Your task to perform on an android device: turn on data saver in the chrome app Image 0: 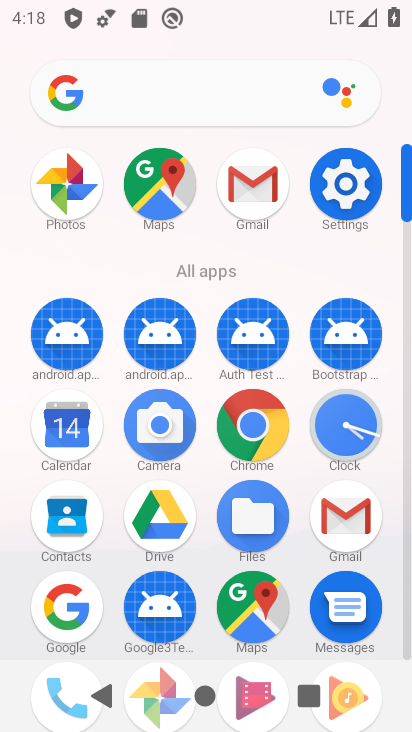
Step 0: click (273, 408)
Your task to perform on an android device: turn on data saver in the chrome app Image 1: 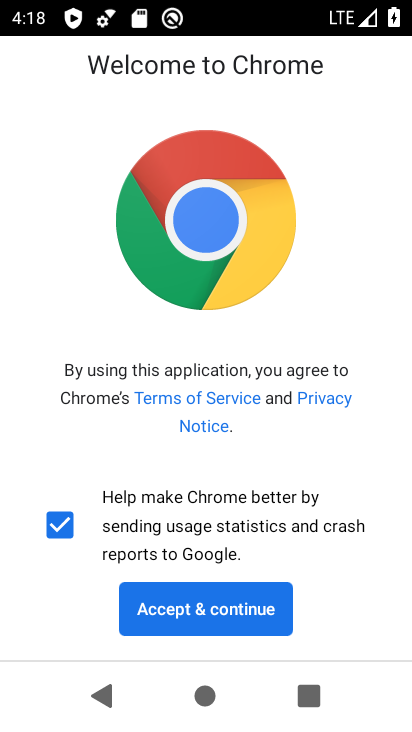
Step 1: click (226, 618)
Your task to perform on an android device: turn on data saver in the chrome app Image 2: 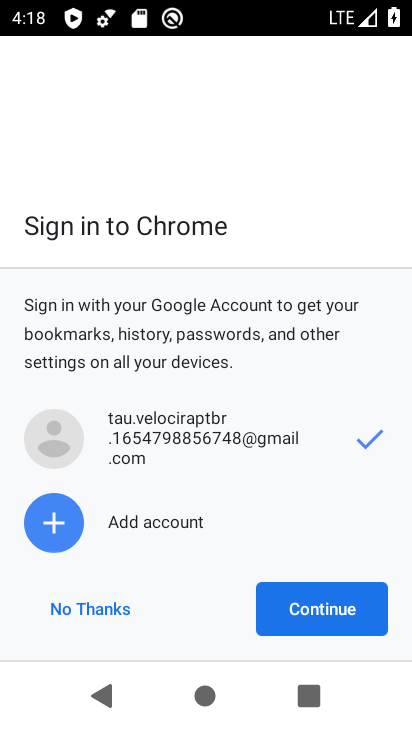
Step 2: click (271, 620)
Your task to perform on an android device: turn on data saver in the chrome app Image 3: 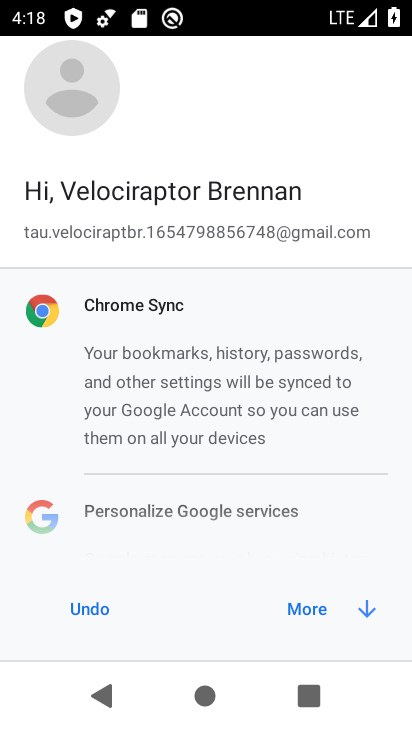
Step 3: click (298, 606)
Your task to perform on an android device: turn on data saver in the chrome app Image 4: 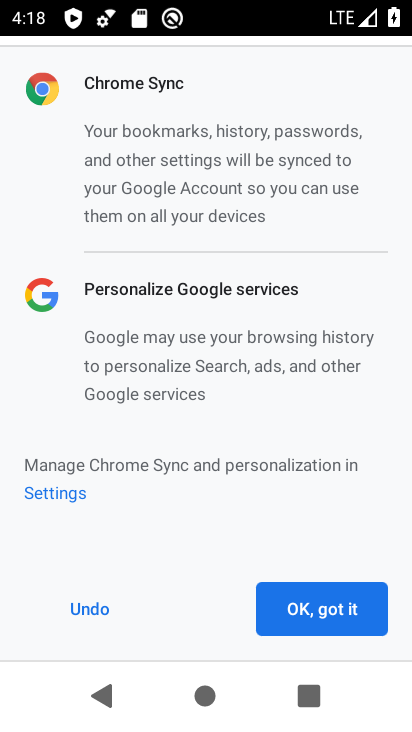
Step 4: click (304, 608)
Your task to perform on an android device: turn on data saver in the chrome app Image 5: 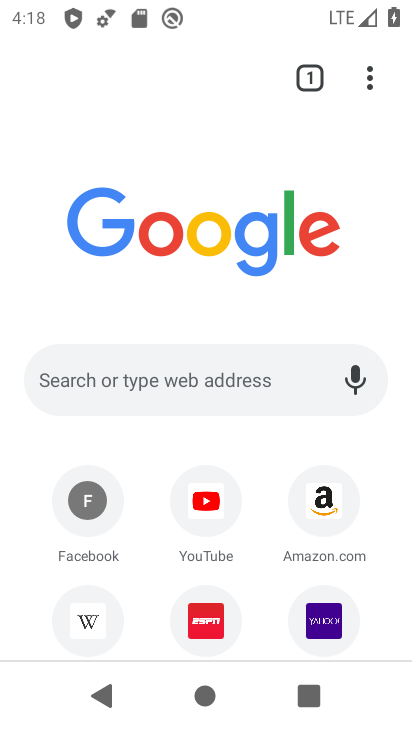
Step 5: click (372, 71)
Your task to perform on an android device: turn on data saver in the chrome app Image 6: 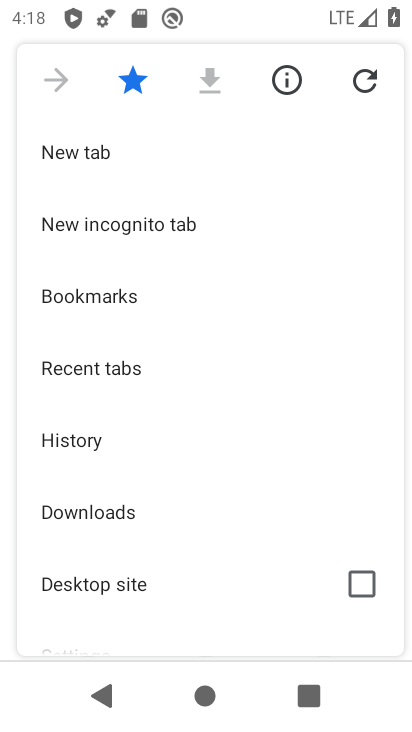
Step 6: drag from (151, 607) to (151, 232)
Your task to perform on an android device: turn on data saver in the chrome app Image 7: 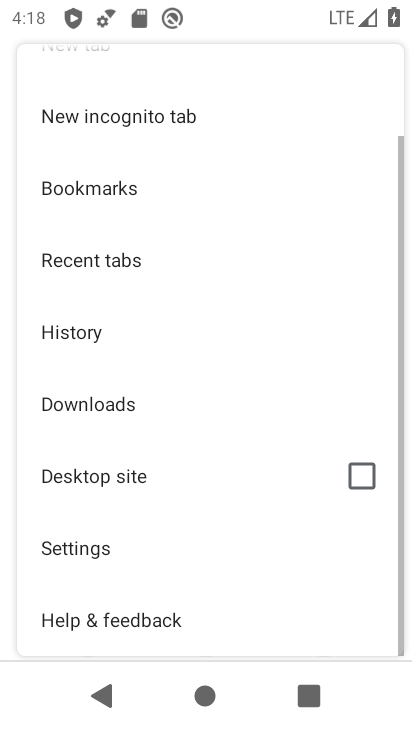
Step 7: click (124, 542)
Your task to perform on an android device: turn on data saver in the chrome app Image 8: 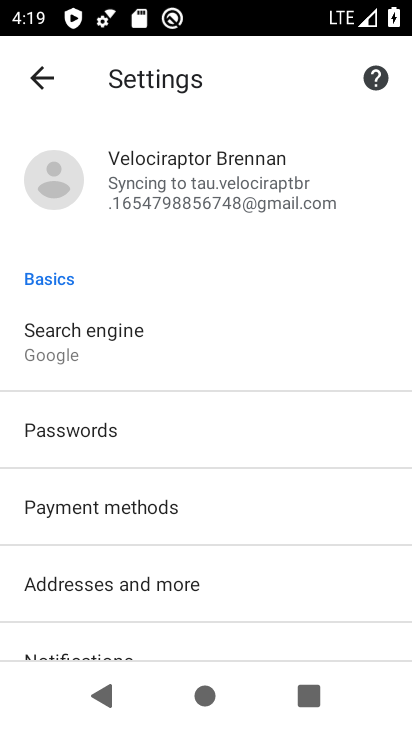
Step 8: drag from (202, 637) to (156, 200)
Your task to perform on an android device: turn on data saver in the chrome app Image 9: 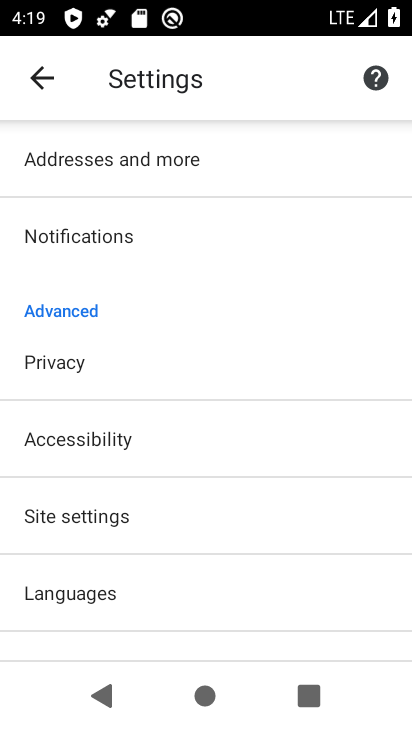
Step 9: drag from (147, 579) to (114, 262)
Your task to perform on an android device: turn on data saver in the chrome app Image 10: 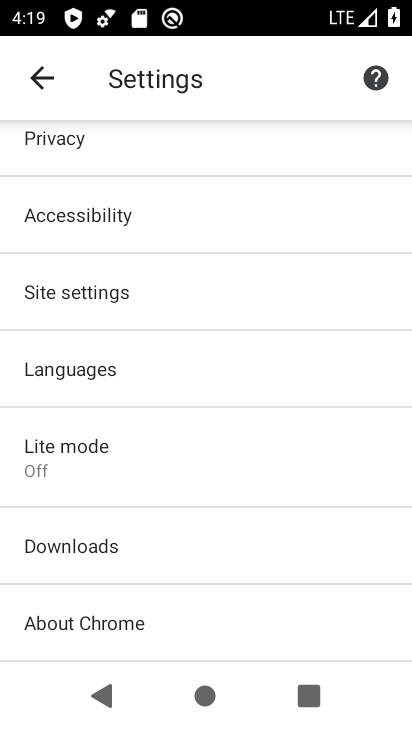
Step 10: click (123, 440)
Your task to perform on an android device: turn on data saver in the chrome app Image 11: 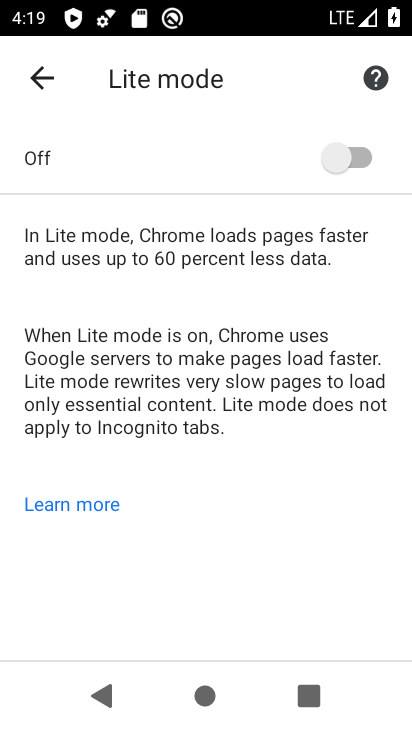
Step 11: click (359, 174)
Your task to perform on an android device: turn on data saver in the chrome app Image 12: 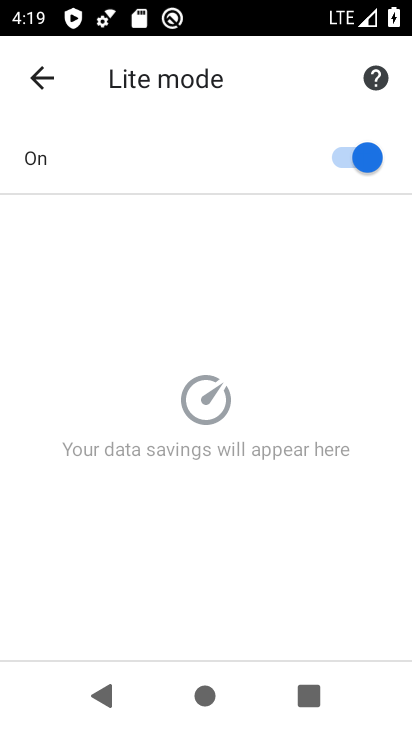
Step 12: task complete